Your task to perform on an android device: toggle translation in the chrome app Image 0: 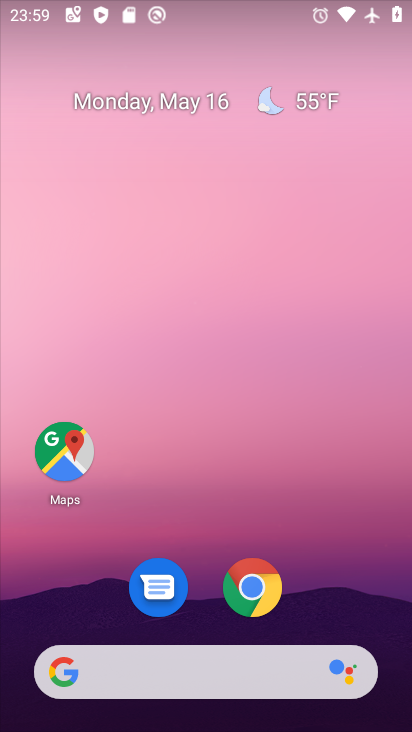
Step 0: drag from (302, 551) to (228, 34)
Your task to perform on an android device: toggle translation in the chrome app Image 1: 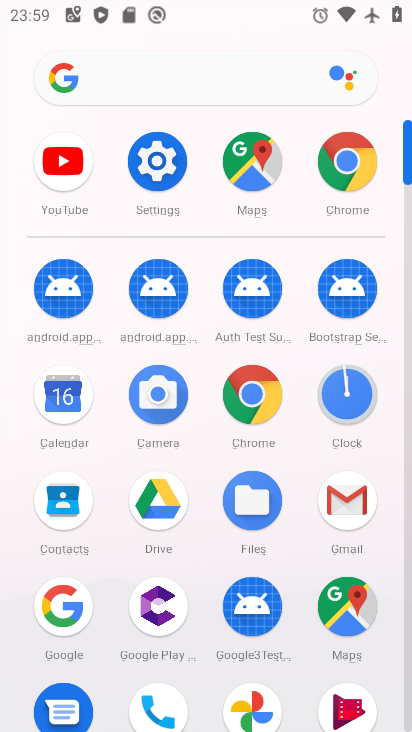
Step 1: click (251, 386)
Your task to perform on an android device: toggle translation in the chrome app Image 2: 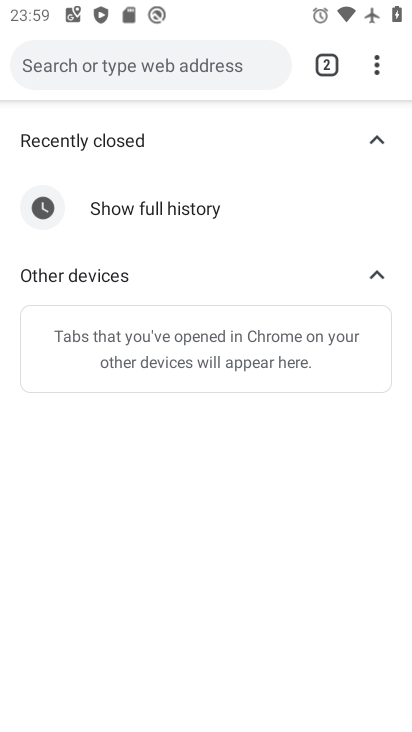
Step 2: drag from (367, 65) to (162, 534)
Your task to perform on an android device: toggle translation in the chrome app Image 3: 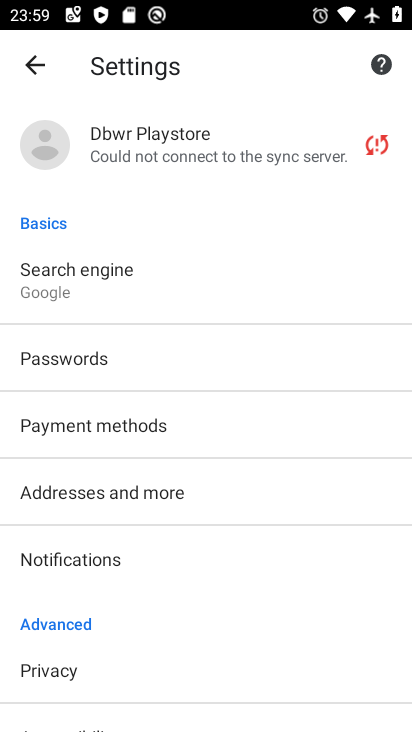
Step 3: drag from (195, 584) to (215, 240)
Your task to perform on an android device: toggle translation in the chrome app Image 4: 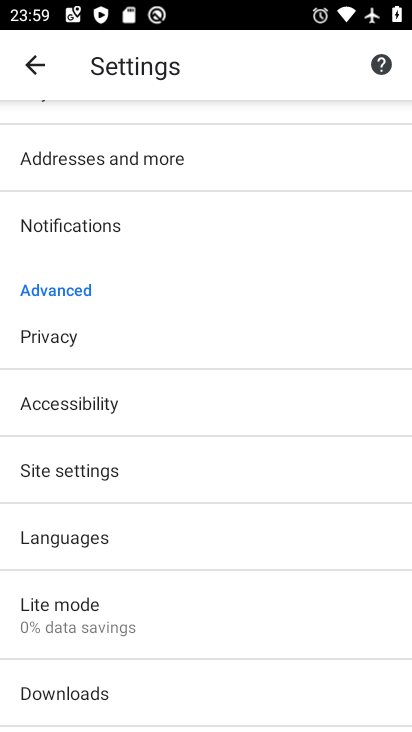
Step 4: click (105, 532)
Your task to perform on an android device: toggle translation in the chrome app Image 5: 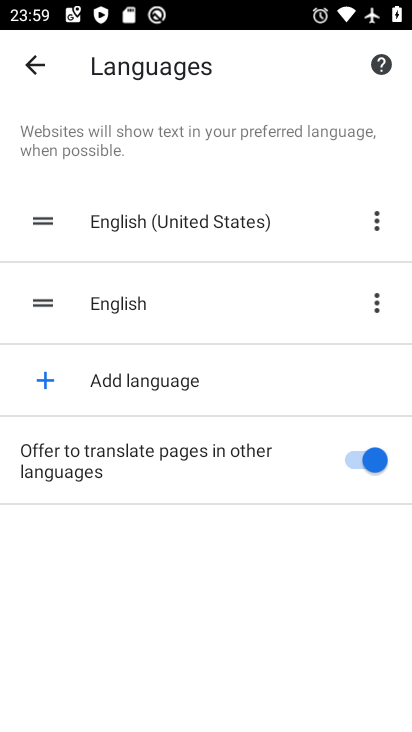
Step 5: click (361, 440)
Your task to perform on an android device: toggle translation in the chrome app Image 6: 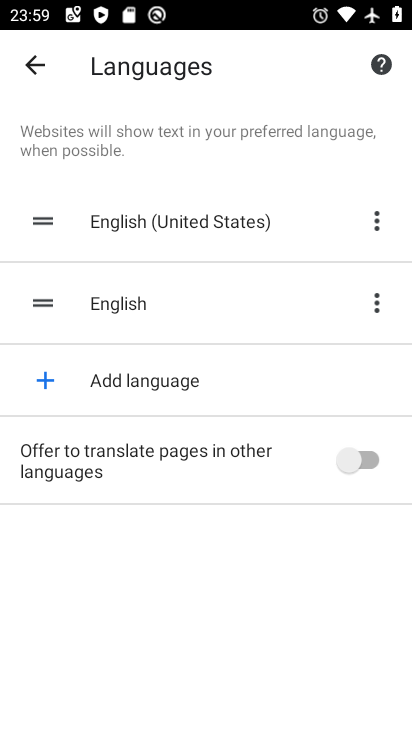
Step 6: task complete